Your task to perform on an android device: See recent photos Image 0: 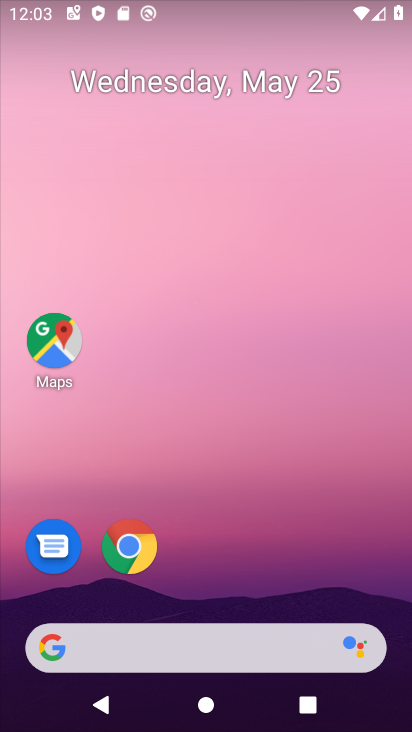
Step 0: drag from (239, 573) to (184, 261)
Your task to perform on an android device: See recent photos Image 1: 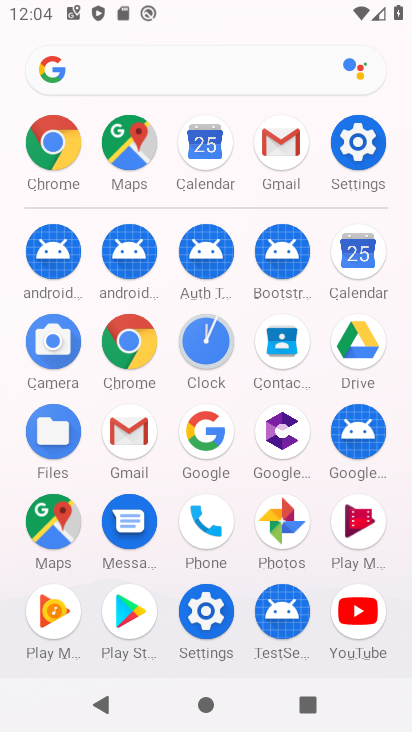
Step 1: click (263, 528)
Your task to perform on an android device: See recent photos Image 2: 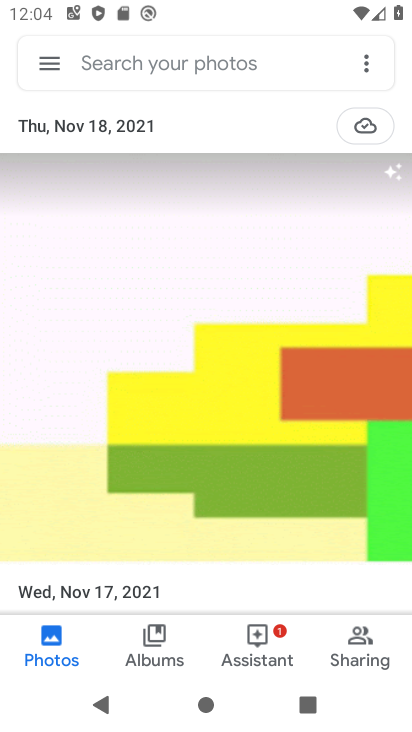
Step 2: task complete